Your task to perform on an android device: open app "Grab" (install if not already installed) Image 0: 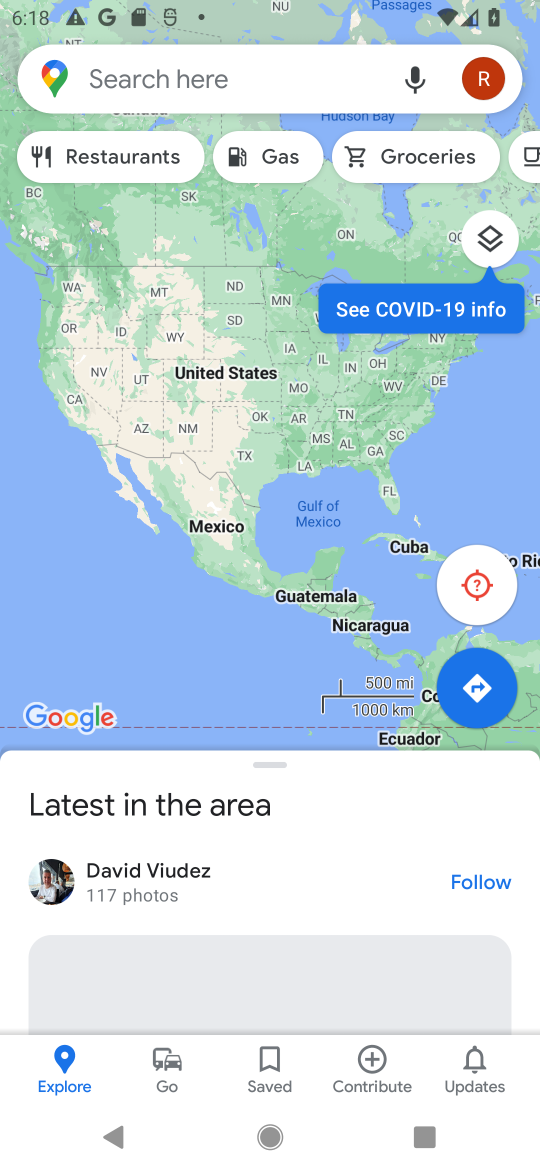
Step 0: press home button
Your task to perform on an android device: open app "Grab" (install if not already installed) Image 1: 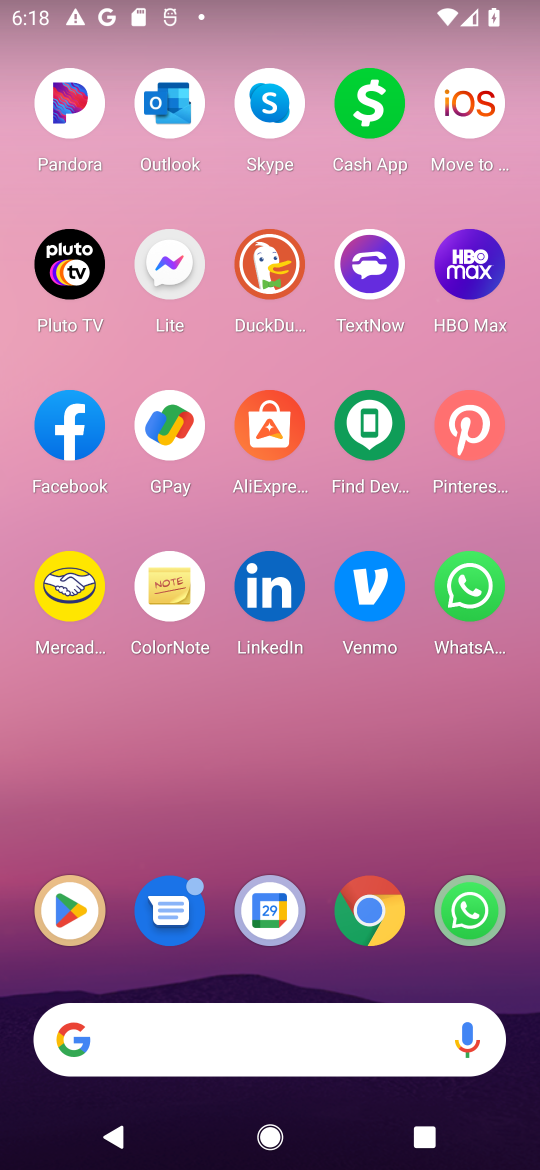
Step 1: drag from (212, 1003) to (255, 509)
Your task to perform on an android device: open app "Grab" (install if not already installed) Image 2: 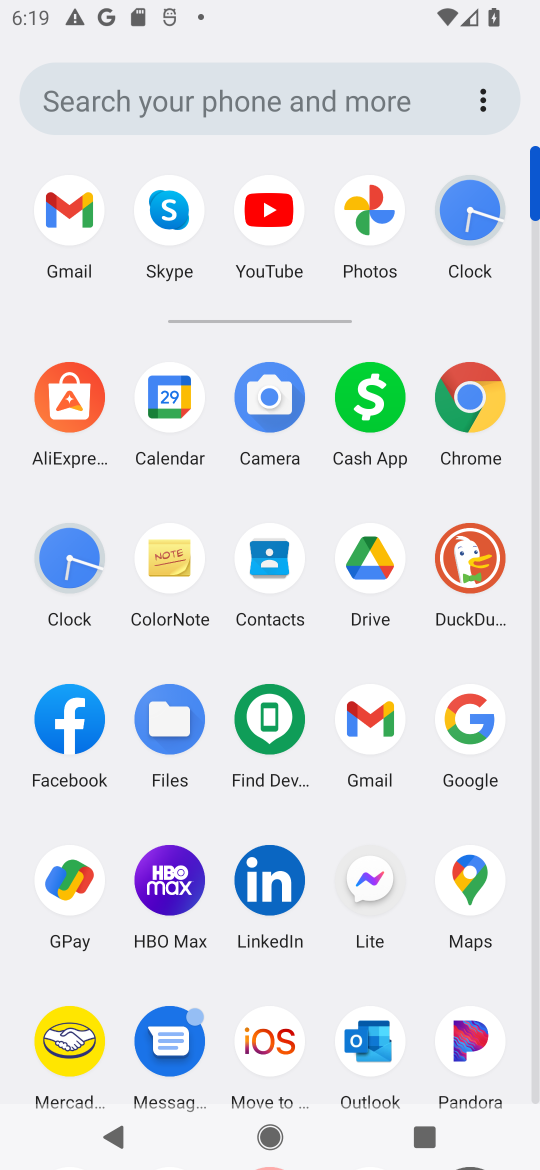
Step 2: drag from (224, 1043) to (196, 644)
Your task to perform on an android device: open app "Grab" (install if not already installed) Image 3: 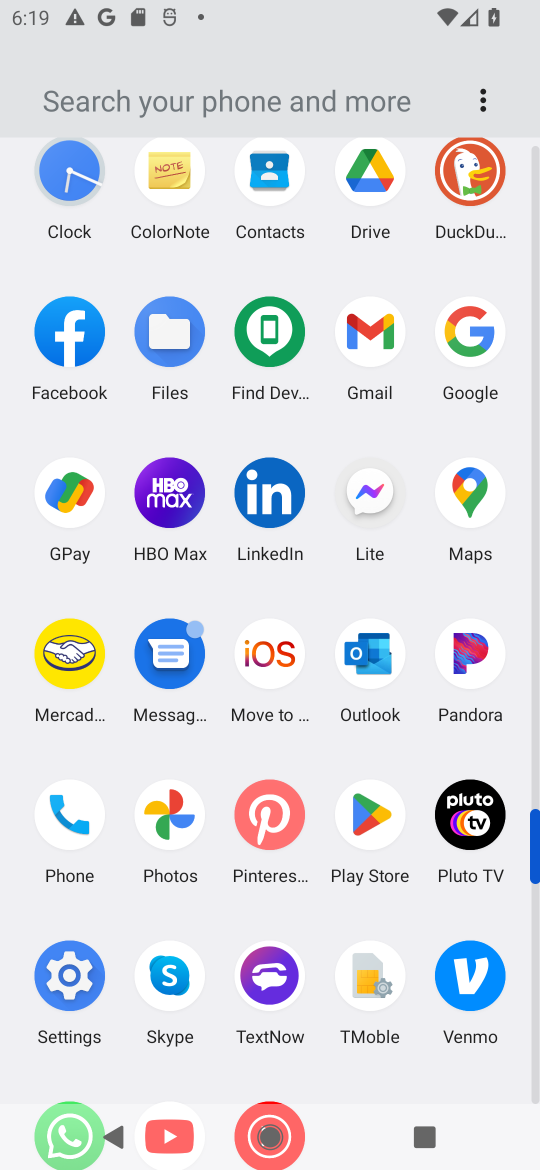
Step 3: click (379, 819)
Your task to perform on an android device: open app "Grab" (install if not already installed) Image 4: 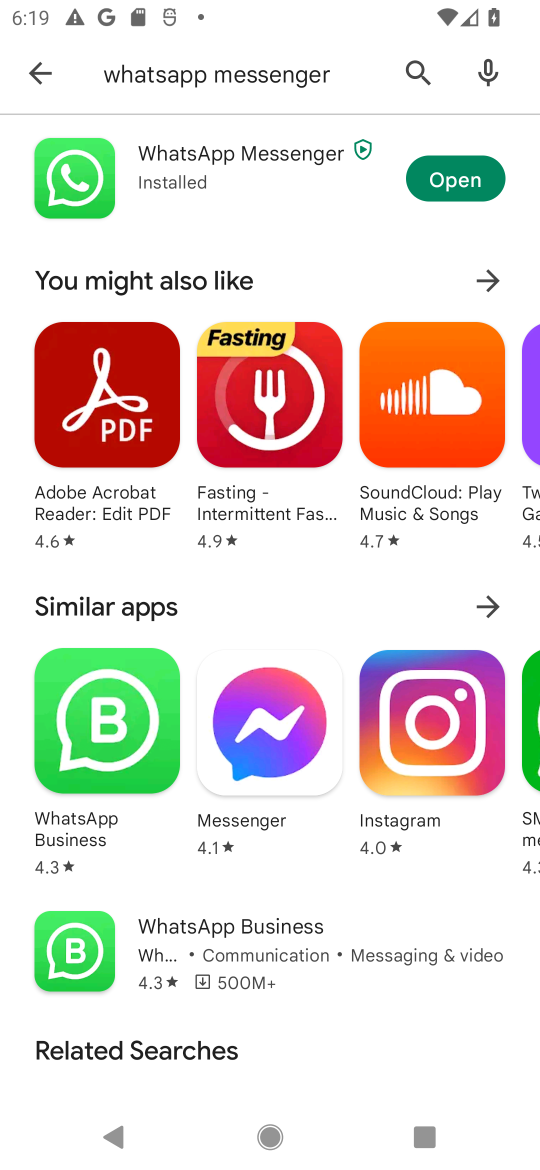
Step 4: click (425, 62)
Your task to perform on an android device: open app "Grab" (install if not already installed) Image 5: 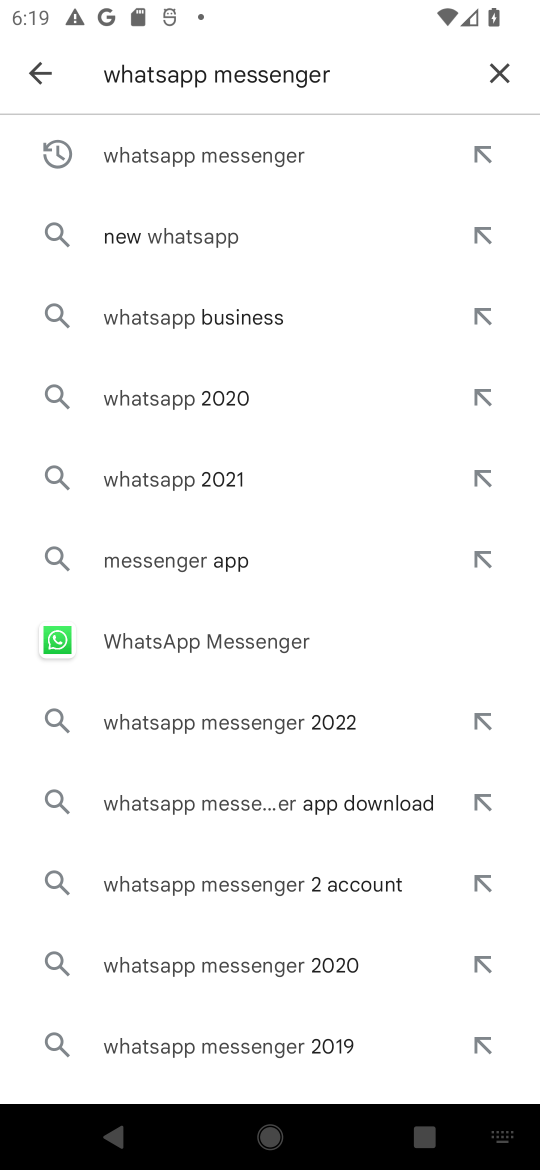
Step 5: click (489, 79)
Your task to perform on an android device: open app "Grab" (install if not already installed) Image 6: 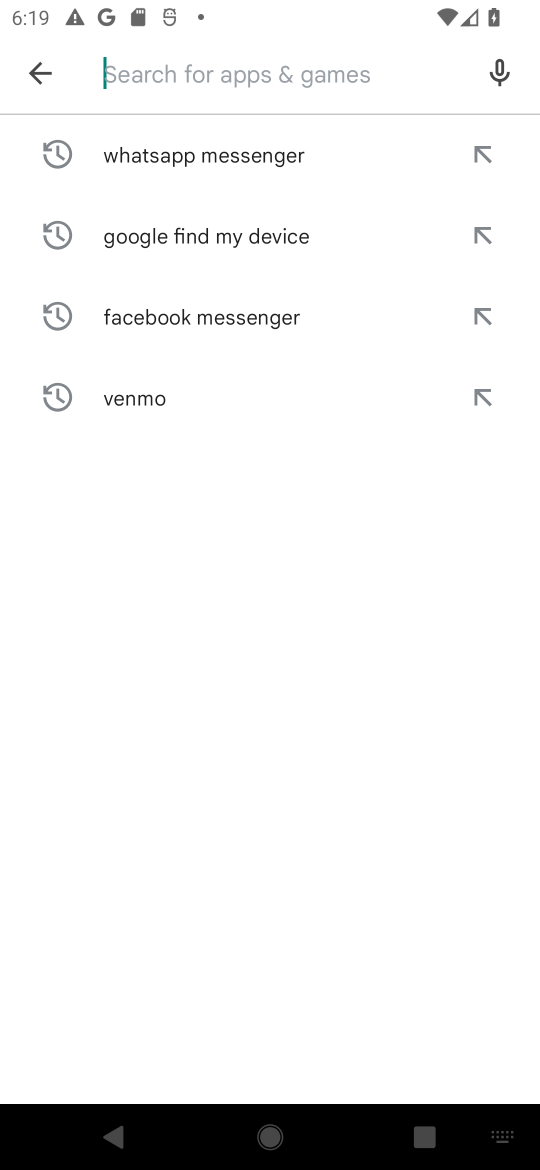
Step 6: type "Grab"
Your task to perform on an android device: open app "Grab" (install if not already installed) Image 7: 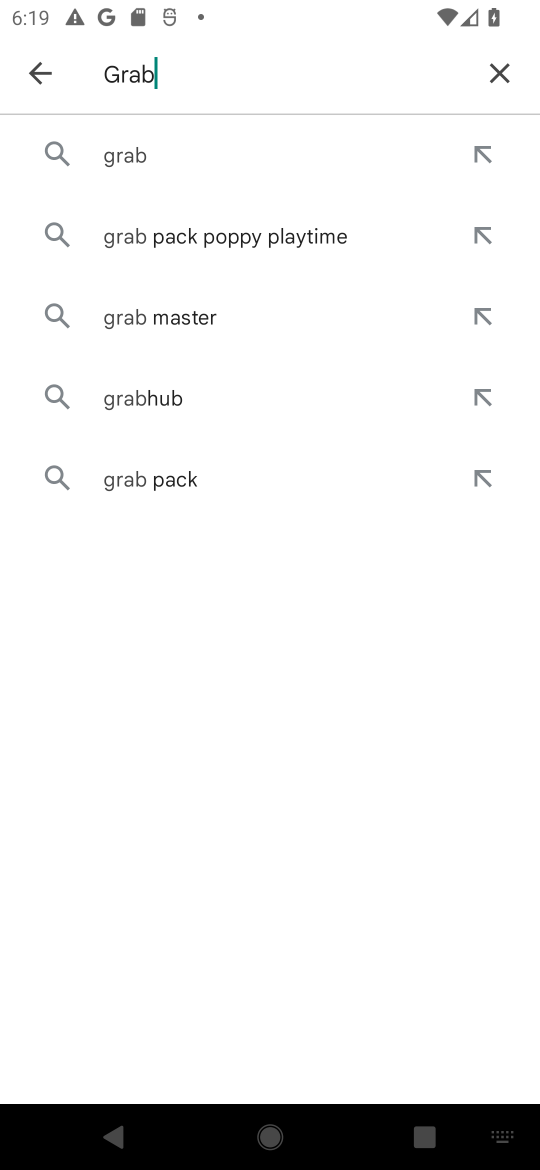
Step 7: click (134, 153)
Your task to perform on an android device: open app "Grab" (install if not already installed) Image 8: 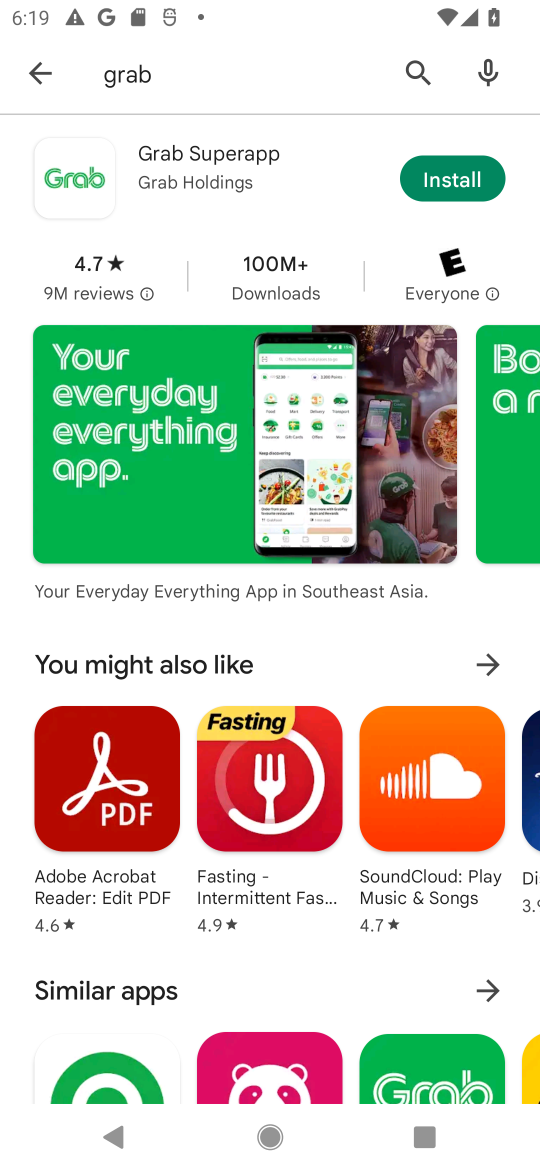
Step 8: click (445, 177)
Your task to perform on an android device: open app "Grab" (install if not already installed) Image 9: 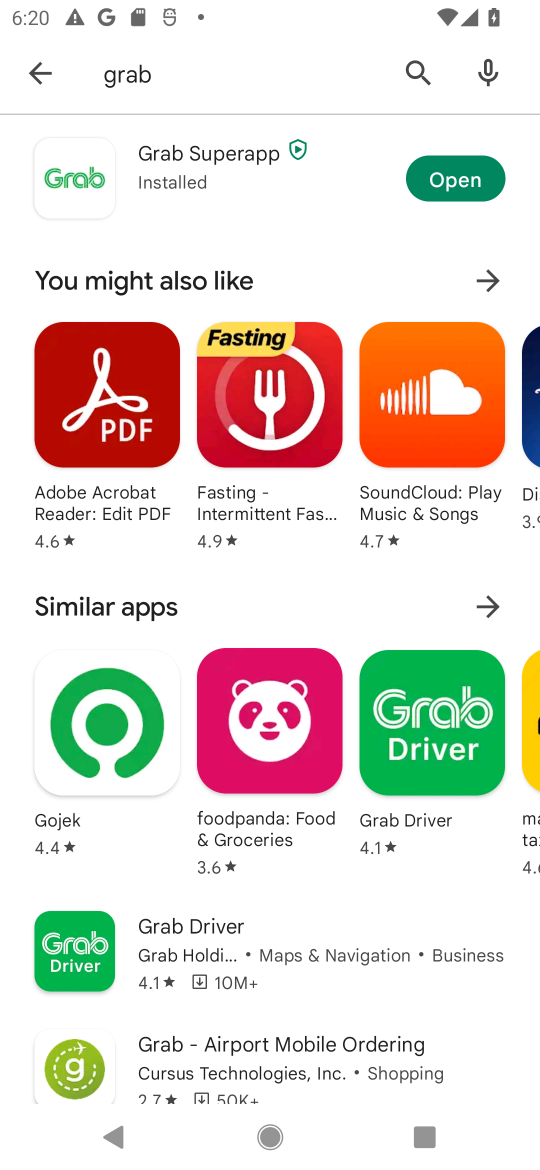
Step 9: click (453, 185)
Your task to perform on an android device: open app "Grab" (install if not already installed) Image 10: 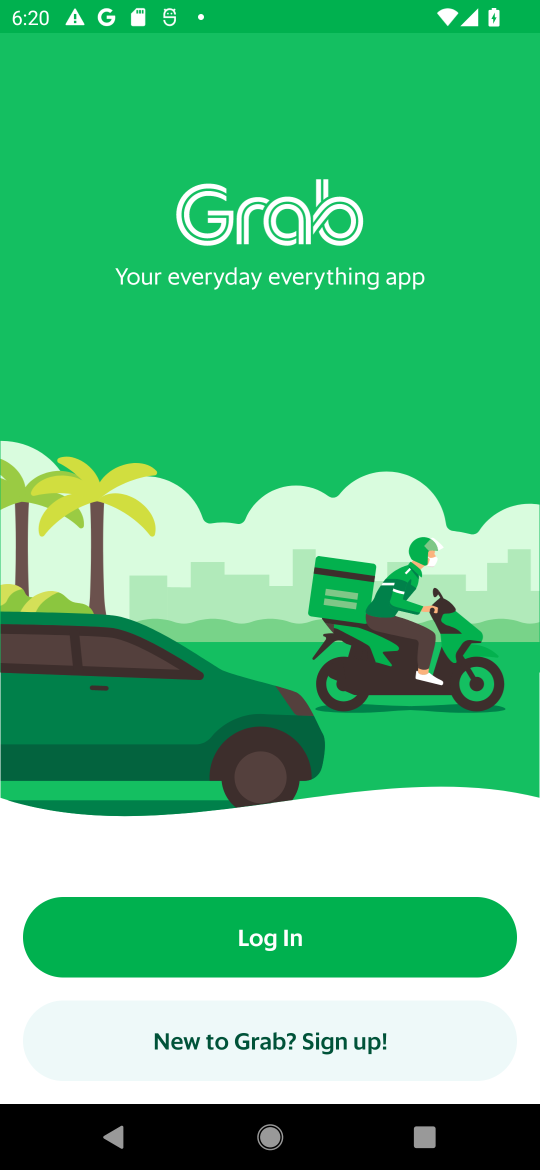
Step 10: task complete